Your task to perform on an android device: turn on priority inbox in the gmail app Image 0: 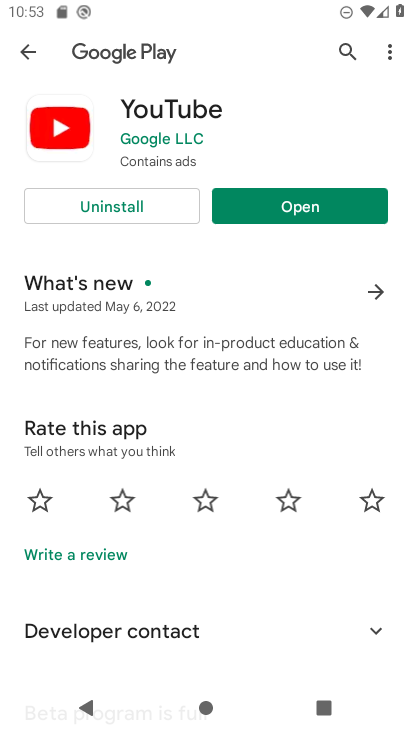
Step 0: press home button
Your task to perform on an android device: turn on priority inbox in the gmail app Image 1: 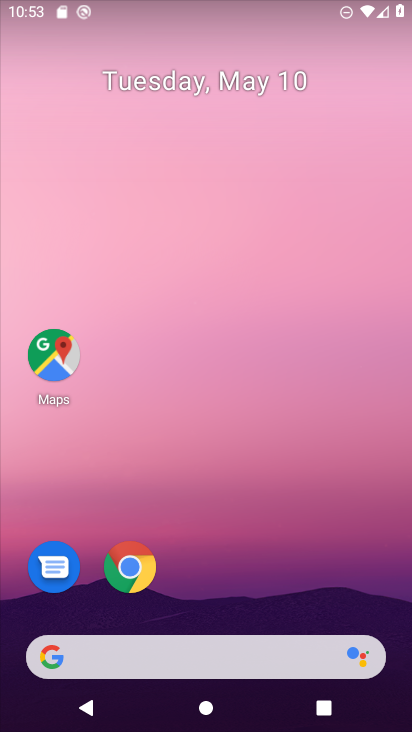
Step 1: drag from (267, 605) to (289, 224)
Your task to perform on an android device: turn on priority inbox in the gmail app Image 2: 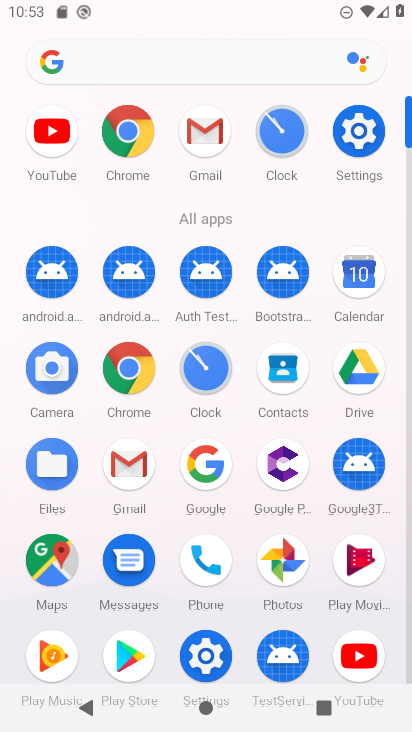
Step 2: click (121, 486)
Your task to perform on an android device: turn on priority inbox in the gmail app Image 3: 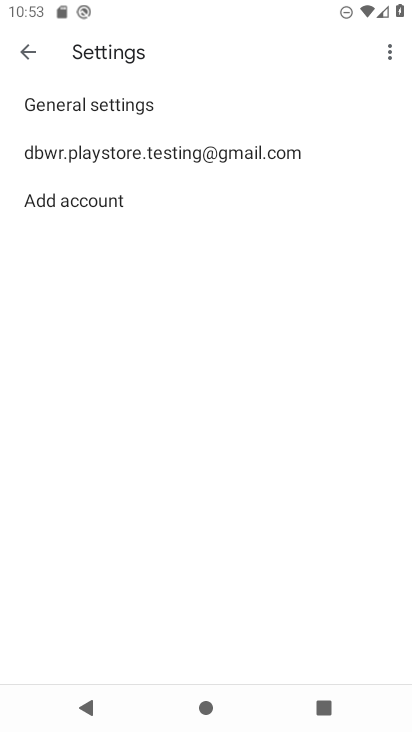
Step 3: press back button
Your task to perform on an android device: turn on priority inbox in the gmail app Image 4: 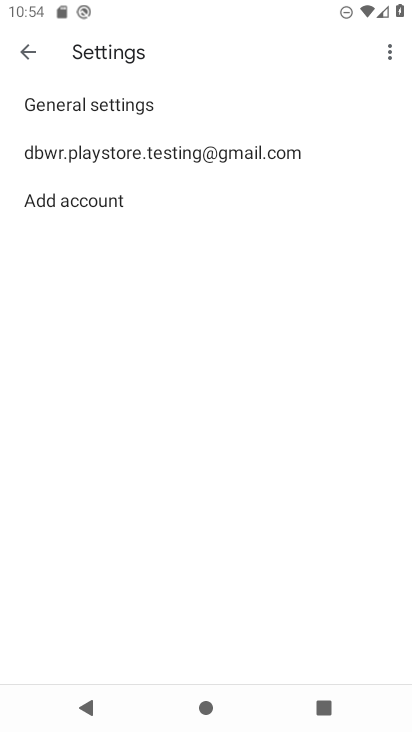
Step 4: press back button
Your task to perform on an android device: turn on priority inbox in the gmail app Image 5: 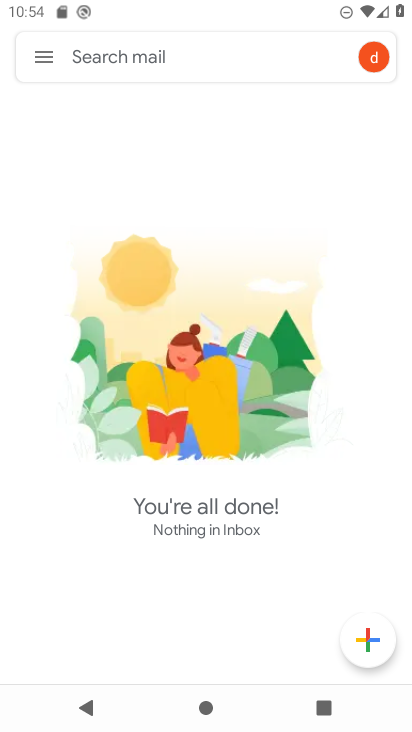
Step 5: click (42, 60)
Your task to perform on an android device: turn on priority inbox in the gmail app Image 6: 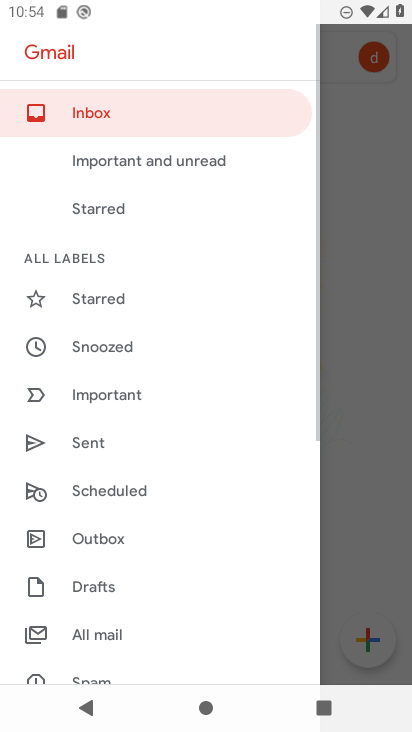
Step 6: drag from (148, 606) to (171, 165)
Your task to perform on an android device: turn on priority inbox in the gmail app Image 7: 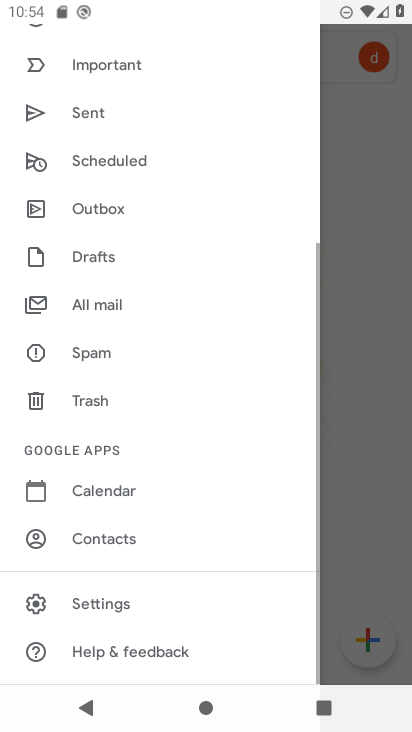
Step 7: click (139, 599)
Your task to perform on an android device: turn on priority inbox in the gmail app Image 8: 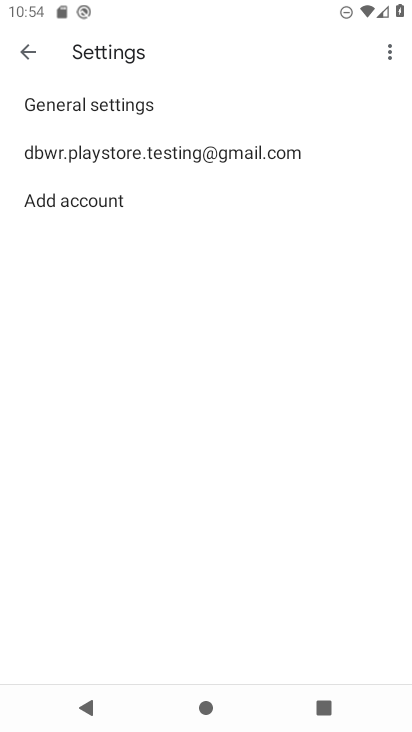
Step 8: click (219, 165)
Your task to perform on an android device: turn on priority inbox in the gmail app Image 9: 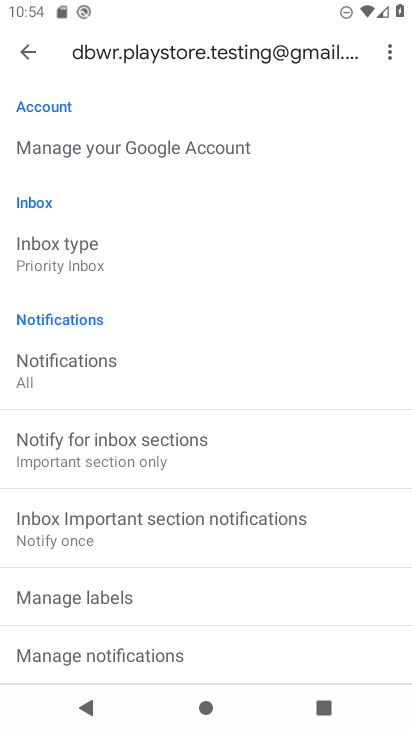
Step 9: click (107, 252)
Your task to perform on an android device: turn on priority inbox in the gmail app Image 10: 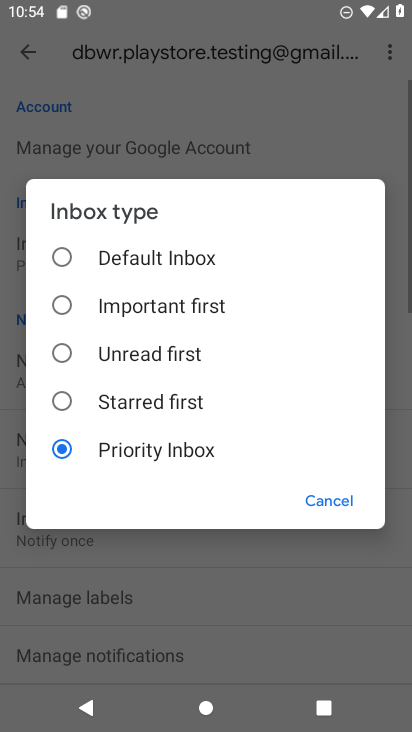
Step 10: task complete